Your task to perform on an android device: Search for "asus rog" on amazon, select the first entry, and add it to the cart. Image 0: 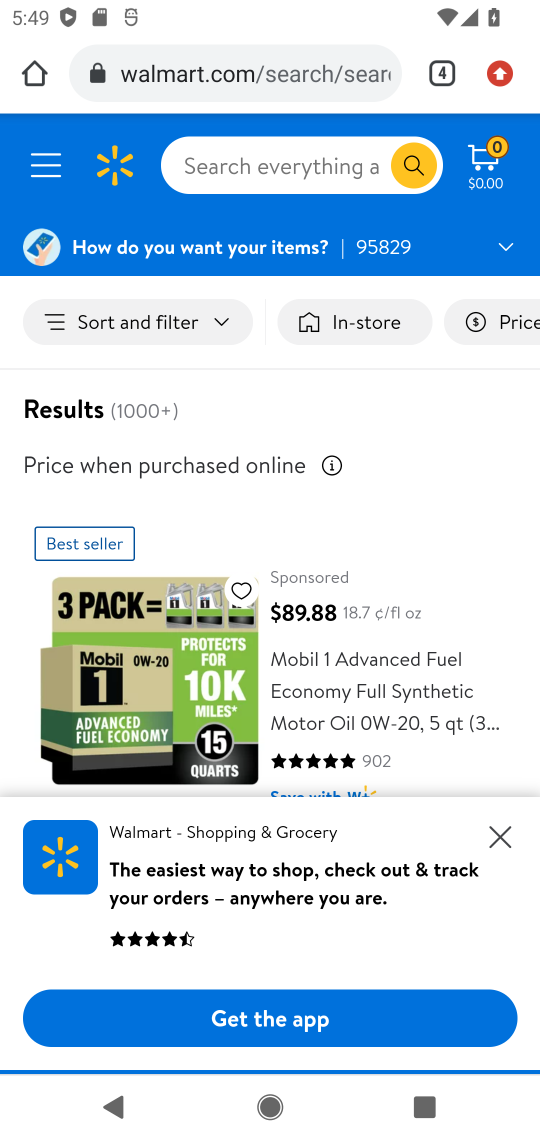
Step 0: click (439, 78)
Your task to perform on an android device: Search for "asus rog" on amazon, select the first entry, and add it to the cart. Image 1: 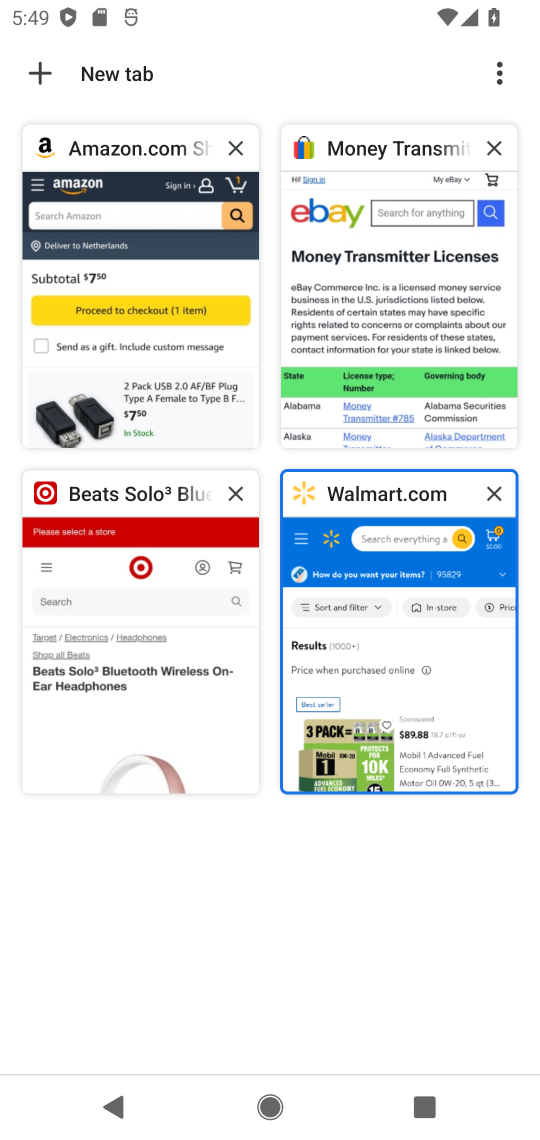
Step 1: click (158, 226)
Your task to perform on an android device: Search for "asus rog" on amazon, select the first entry, and add it to the cart. Image 2: 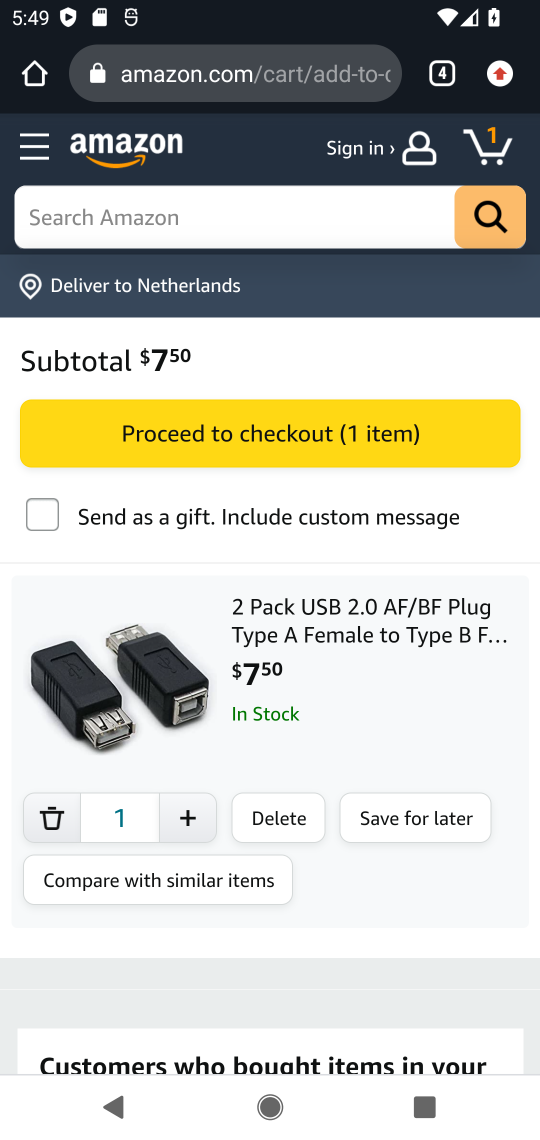
Step 2: click (172, 202)
Your task to perform on an android device: Search for "asus rog" on amazon, select the first entry, and add it to the cart. Image 3: 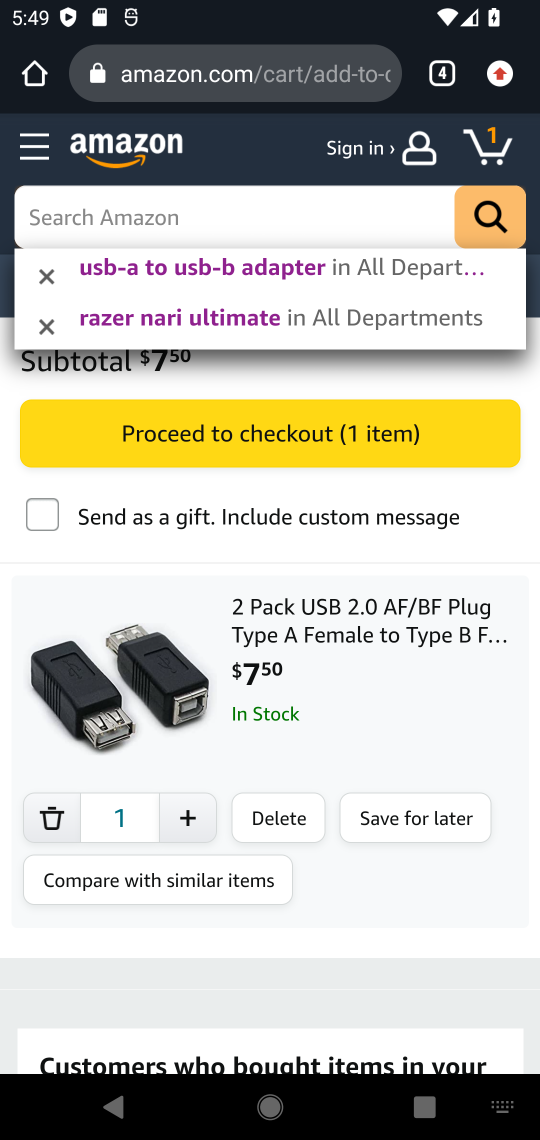
Step 3: type "asus rog"
Your task to perform on an android device: Search for "asus rog" on amazon, select the first entry, and add it to the cart. Image 4: 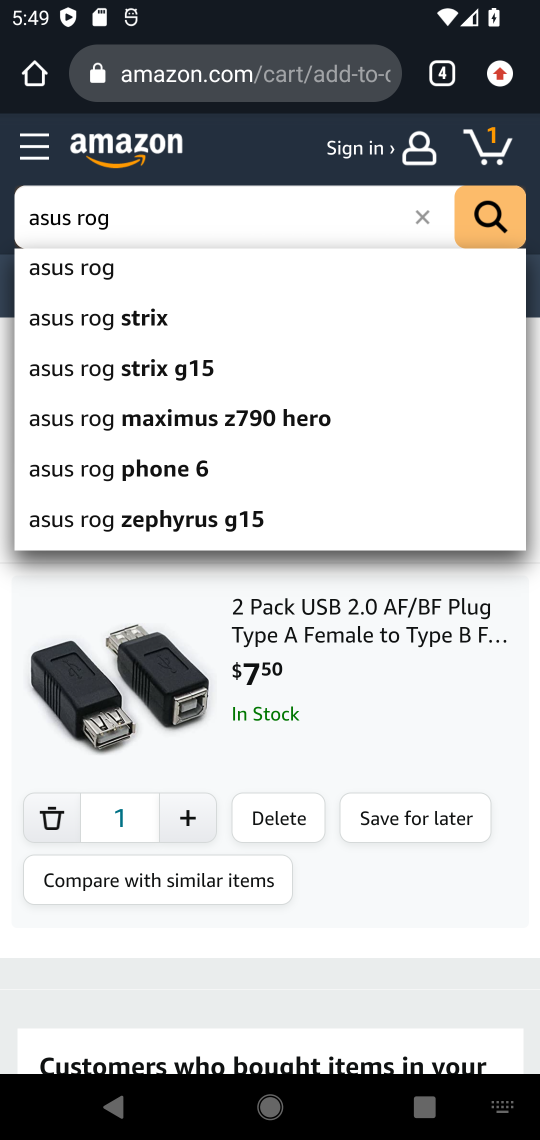
Step 4: click (101, 266)
Your task to perform on an android device: Search for "asus rog" on amazon, select the first entry, and add it to the cart. Image 5: 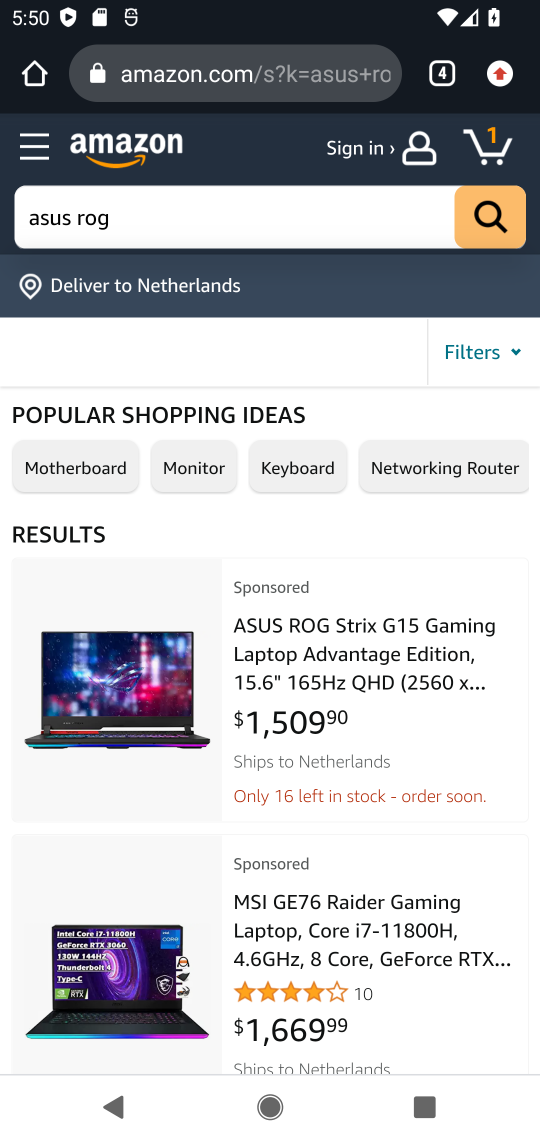
Step 5: click (295, 663)
Your task to perform on an android device: Search for "asus rog" on amazon, select the first entry, and add it to the cart. Image 6: 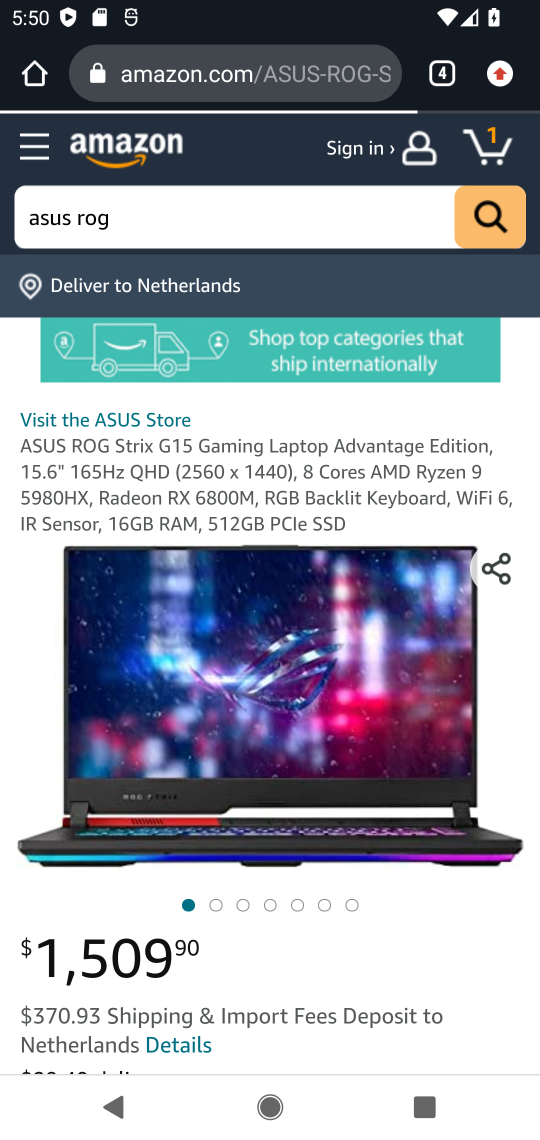
Step 6: drag from (324, 1039) to (335, 191)
Your task to perform on an android device: Search for "asus rog" on amazon, select the first entry, and add it to the cart. Image 7: 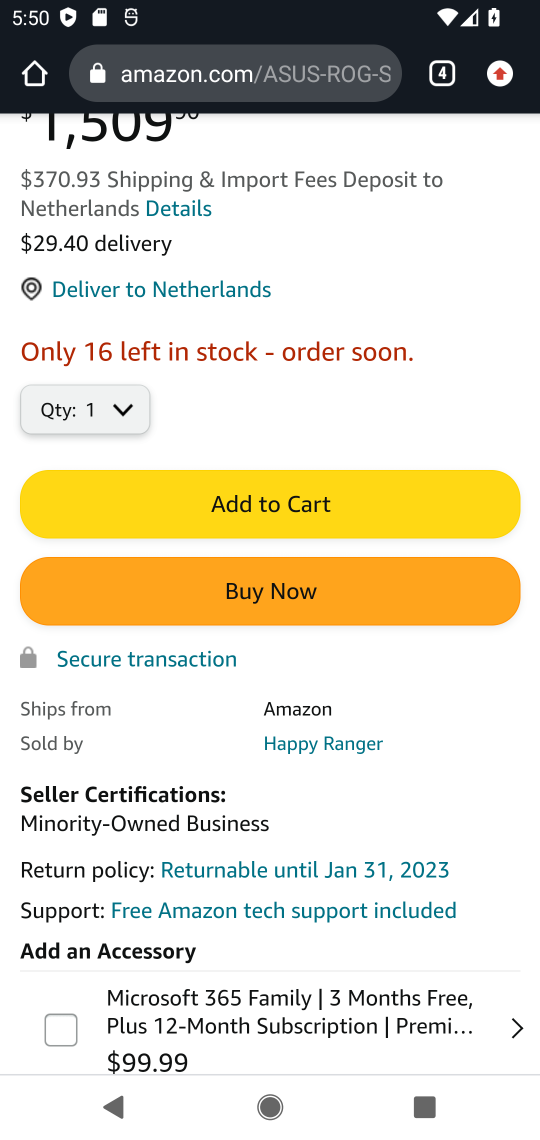
Step 7: click (229, 512)
Your task to perform on an android device: Search for "asus rog" on amazon, select the first entry, and add it to the cart. Image 8: 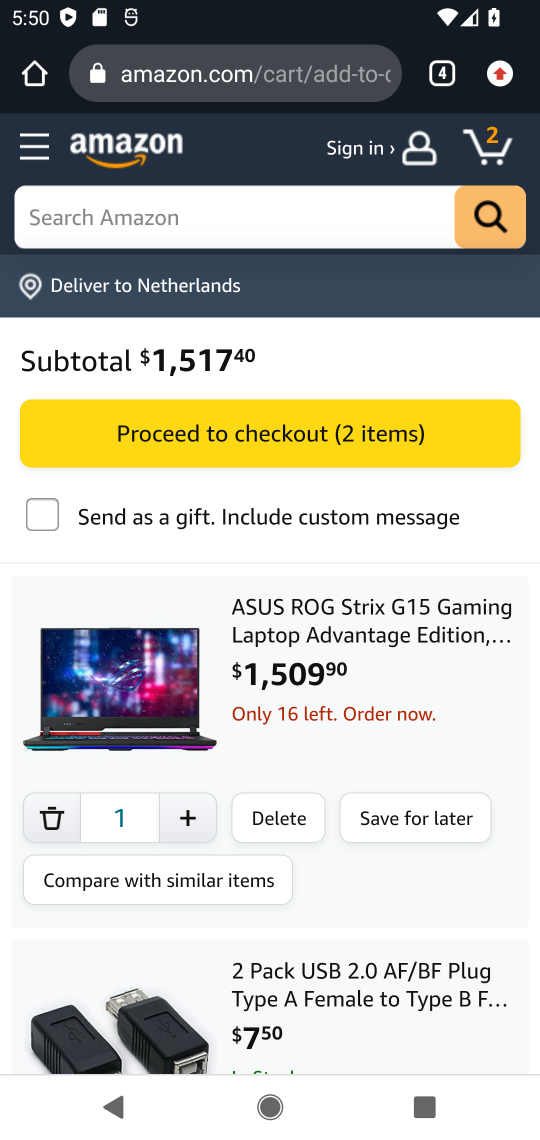
Step 8: task complete